Your task to perform on an android device: Open Youtube and go to the subscriptions tab Image 0: 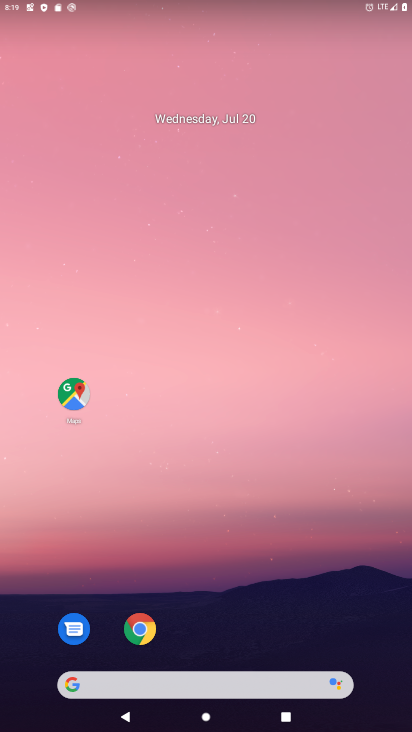
Step 0: drag from (181, 573) to (187, 12)
Your task to perform on an android device: Open Youtube and go to the subscriptions tab Image 1: 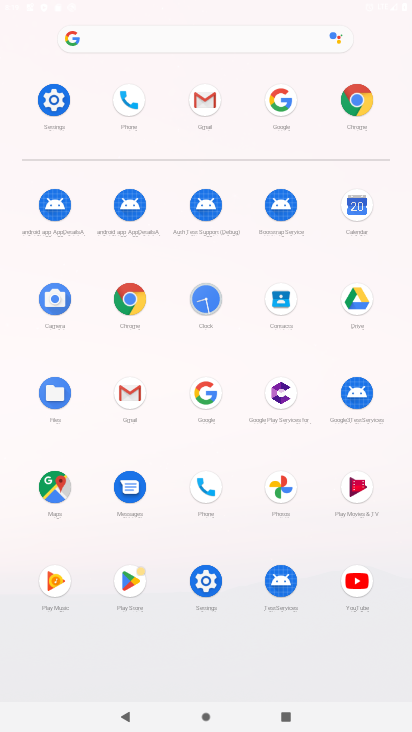
Step 1: click (350, 586)
Your task to perform on an android device: Open Youtube and go to the subscriptions tab Image 2: 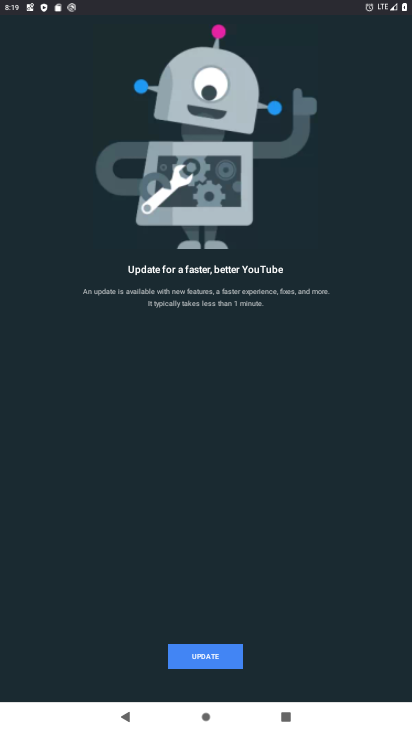
Step 2: click (180, 665)
Your task to perform on an android device: Open Youtube and go to the subscriptions tab Image 3: 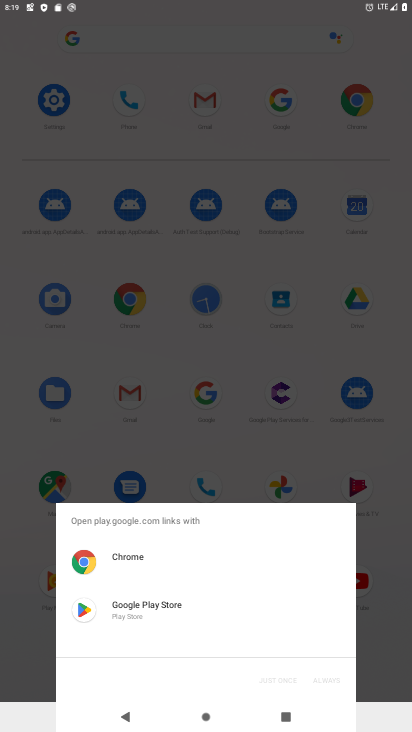
Step 3: click (140, 609)
Your task to perform on an android device: Open Youtube and go to the subscriptions tab Image 4: 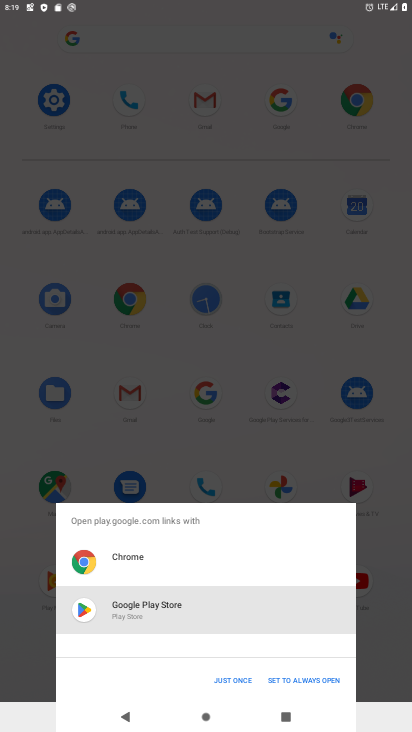
Step 4: click (307, 679)
Your task to perform on an android device: Open Youtube and go to the subscriptions tab Image 5: 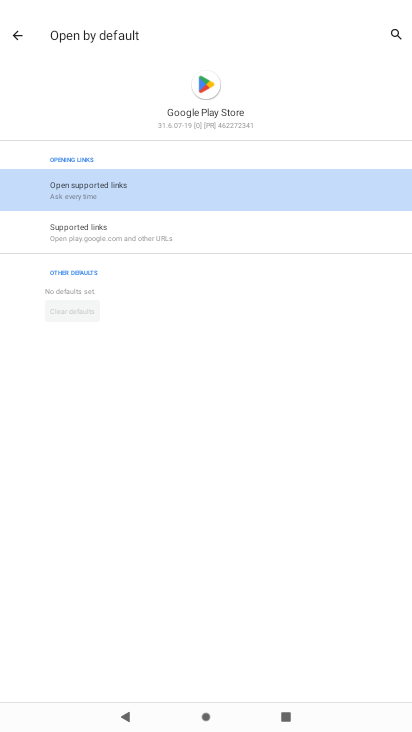
Step 5: click (84, 195)
Your task to perform on an android device: Open Youtube and go to the subscriptions tab Image 6: 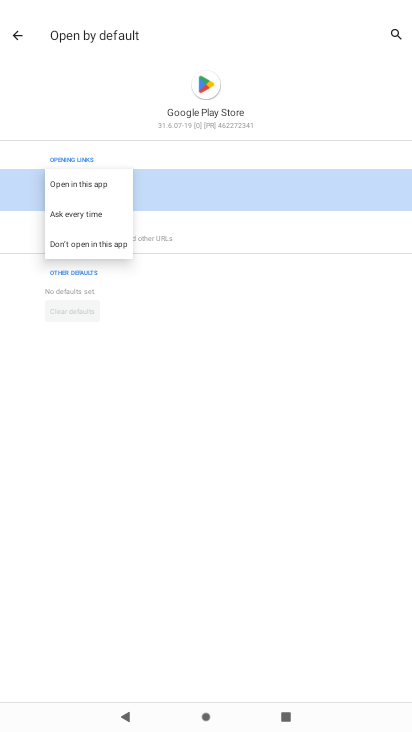
Step 6: click (61, 189)
Your task to perform on an android device: Open Youtube and go to the subscriptions tab Image 7: 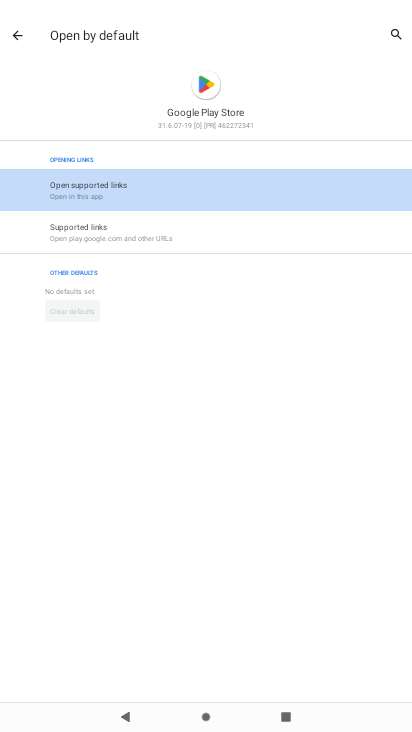
Step 7: click (17, 27)
Your task to perform on an android device: Open Youtube and go to the subscriptions tab Image 8: 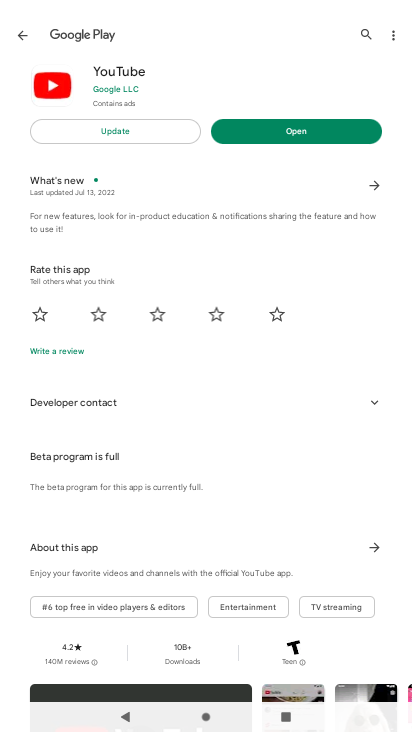
Step 8: click (122, 125)
Your task to perform on an android device: Open Youtube and go to the subscriptions tab Image 9: 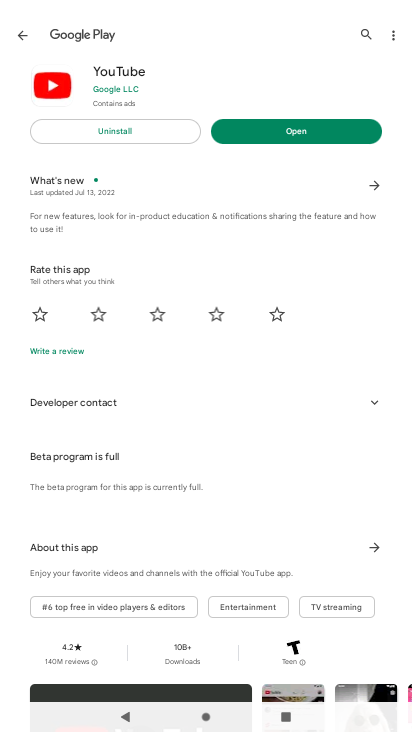
Step 9: click (293, 132)
Your task to perform on an android device: Open Youtube and go to the subscriptions tab Image 10: 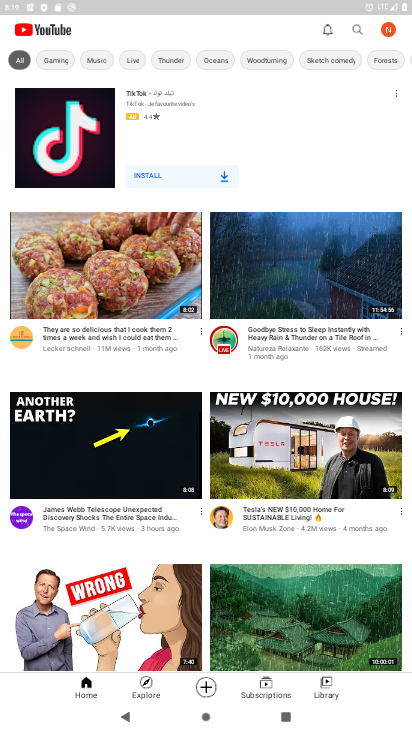
Step 10: click (262, 677)
Your task to perform on an android device: Open Youtube and go to the subscriptions tab Image 11: 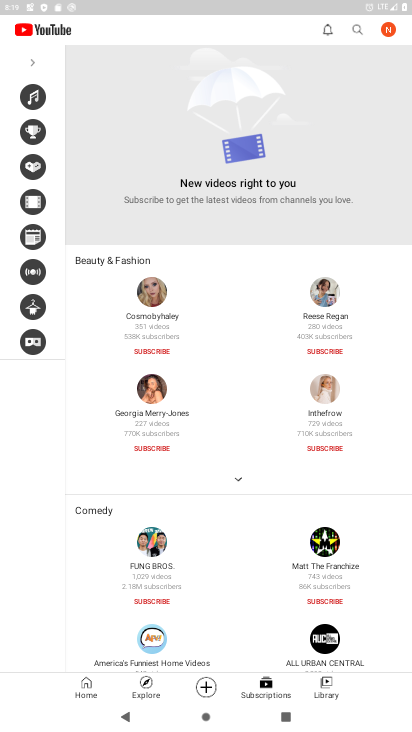
Step 11: task complete